Your task to perform on an android device: toggle pop-ups in chrome Image 0: 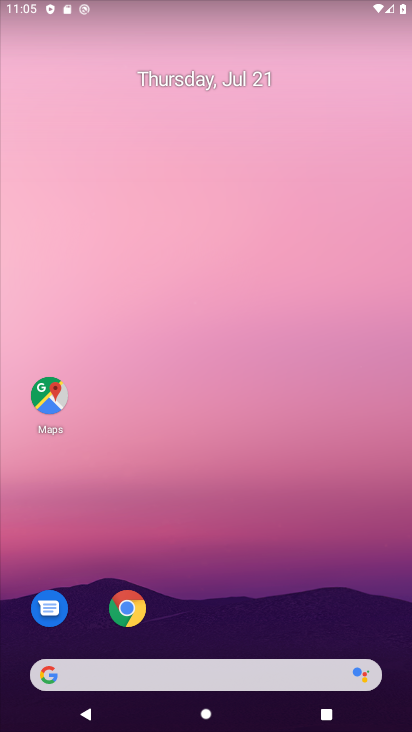
Step 0: drag from (195, 640) to (278, 11)
Your task to perform on an android device: toggle pop-ups in chrome Image 1: 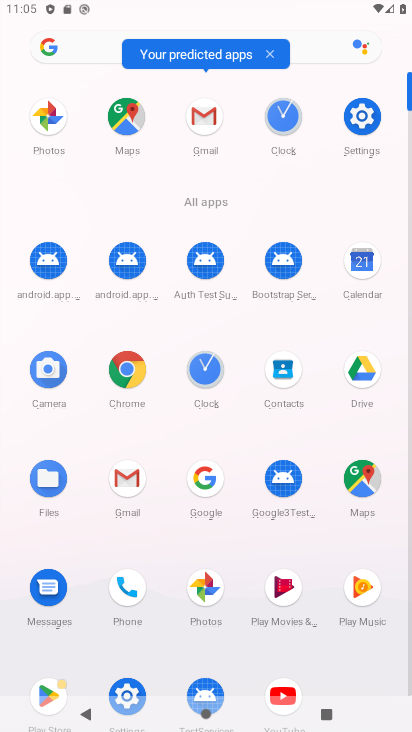
Step 1: click (131, 373)
Your task to perform on an android device: toggle pop-ups in chrome Image 2: 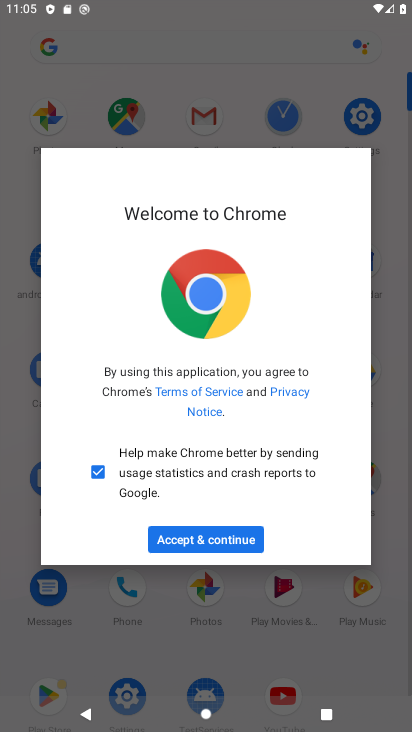
Step 2: click (210, 542)
Your task to perform on an android device: toggle pop-ups in chrome Image 3: 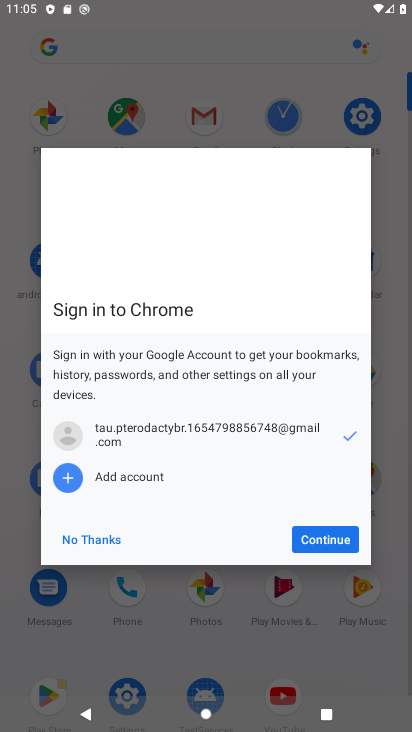
Step 3: click (329, 547)
Your task to perform on an android device: toggle pop-ups in chrome Image 4: 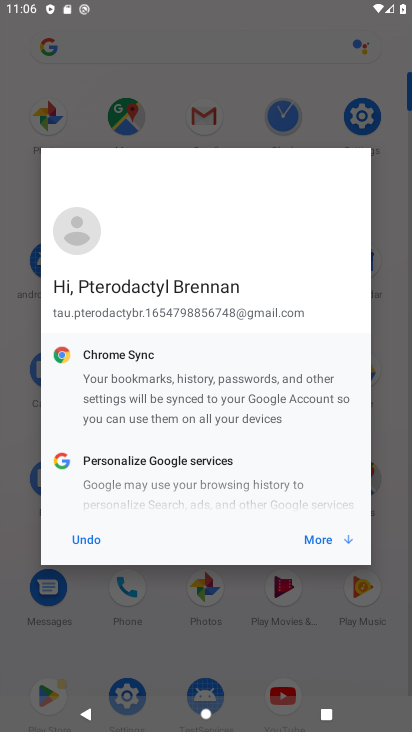
Step 4: click (329, 543)
Your task to perform on an android device: toggle pop-ups in chrome Image 5: 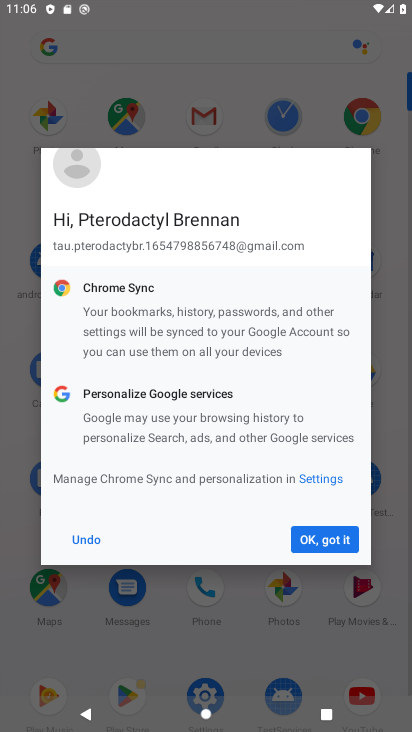
Step 5: click (334, 544)
Your task to perform on an android device: toggle pop-ups in chrome Image 6: 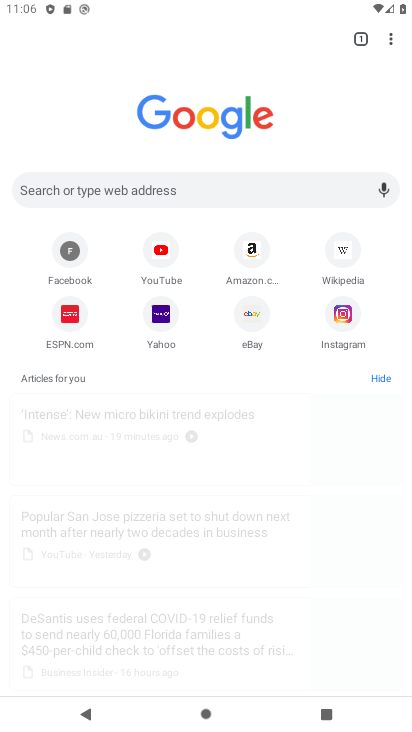
Step 6: click (387, 39)
Your task to perform on an android device: toggle pop-ups in chrome Image 7: 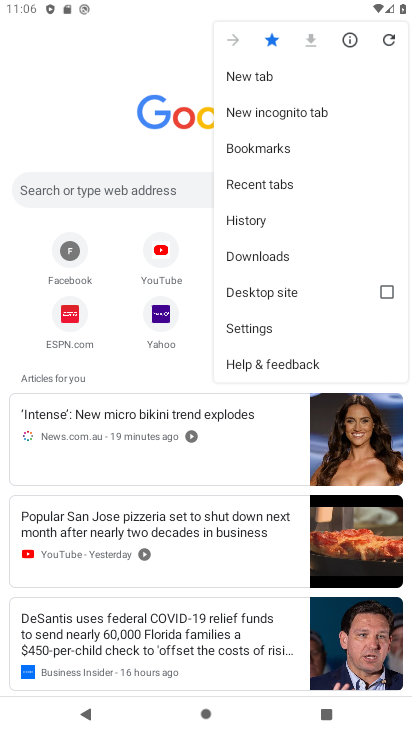
Step 7: click (260, 334)
Your task to perform on an android device: toggle pop-ups in chrome Image 8: 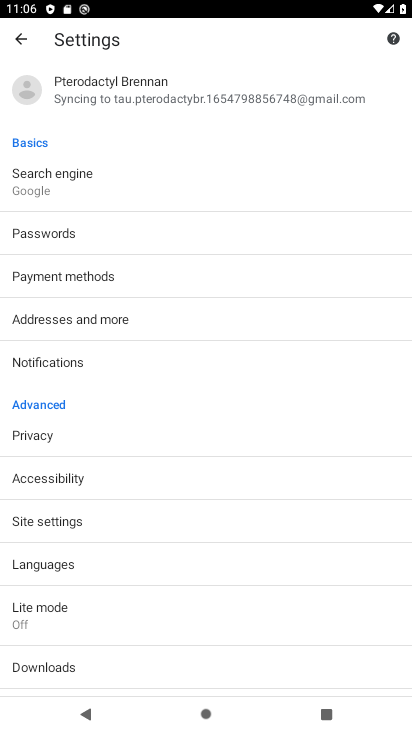
Step 8: click (58, 523)
Your task to perform on an android device: toggle pop-ups in chrome Image 9: 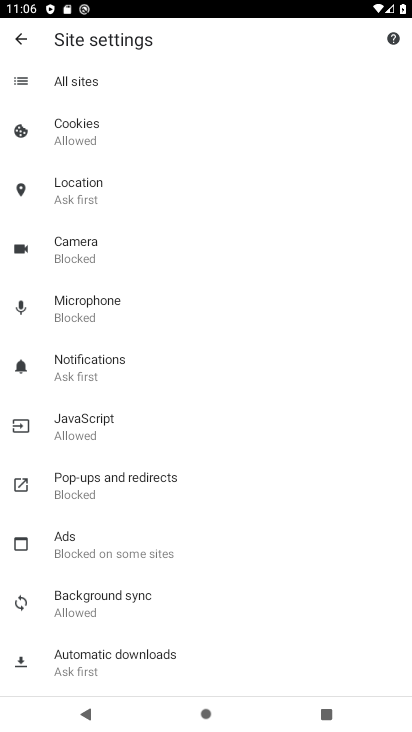
Step 9: click (126, 488)
Your task to perform on an android device: toggle pop-ups in chrome Image 10: 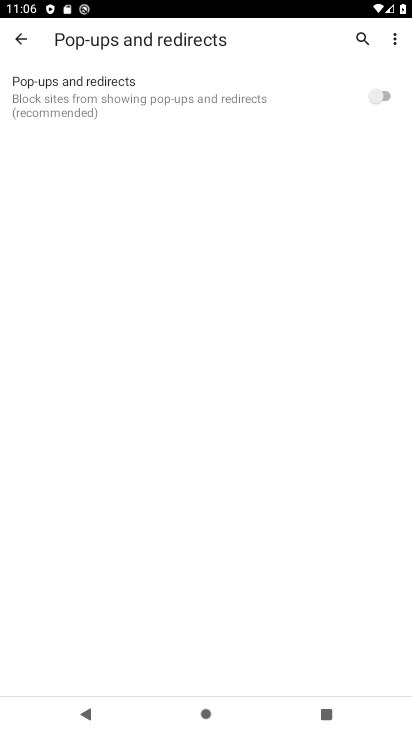
Step 10: click (361, 96)
Your task to perform on an android device: toggle pop-ups in chrome Image 11: 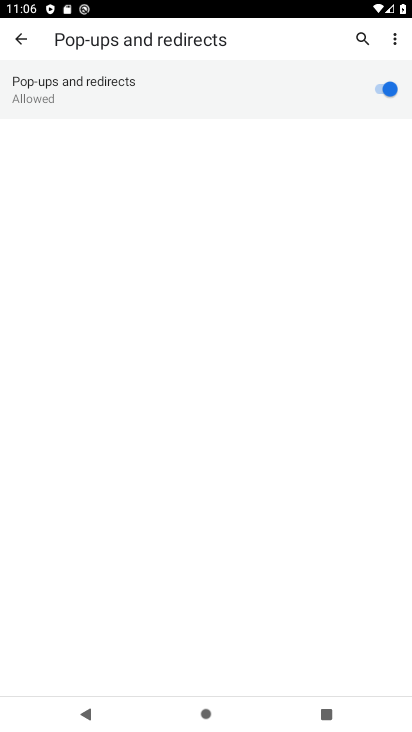
Step 11: task complete